Your task to perform on an android device: delete location history Image 0: 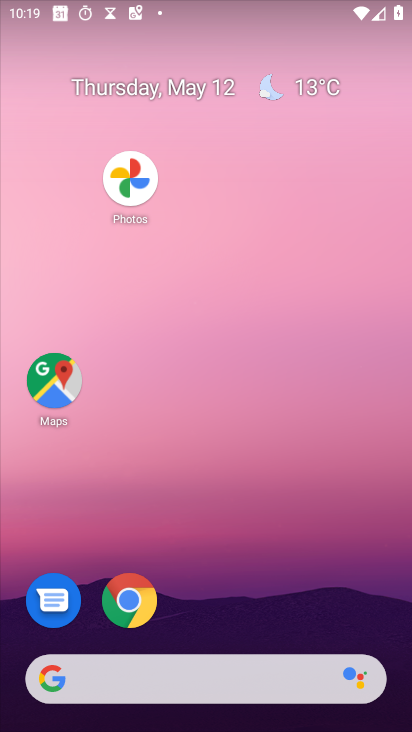
Step 0: drag from (244, 602) to (163, 54)
Your task to perform on an android device: delete location history Image 1: 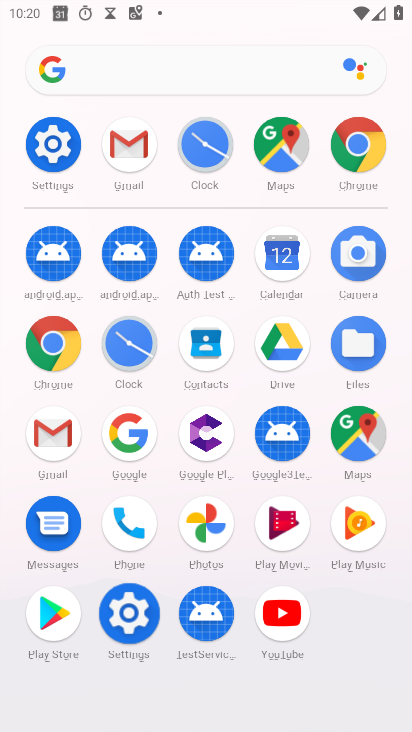
Step 1: click (366, 441)
Your task to perform on an android device: delete location history Image 2: 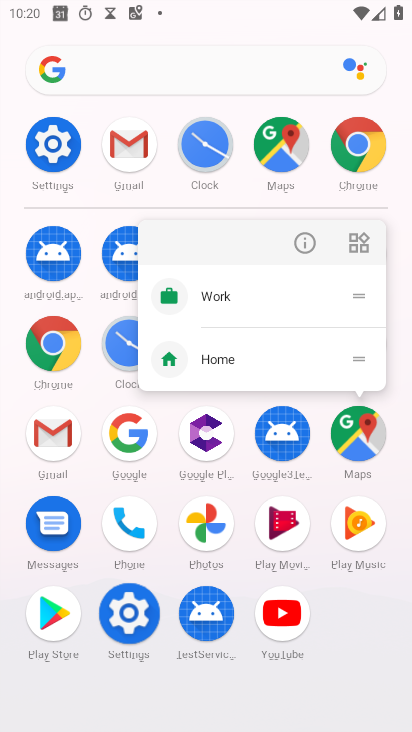
Step 2: click (359, 429)
Your task to perform on an android device: delete location history Image 3: 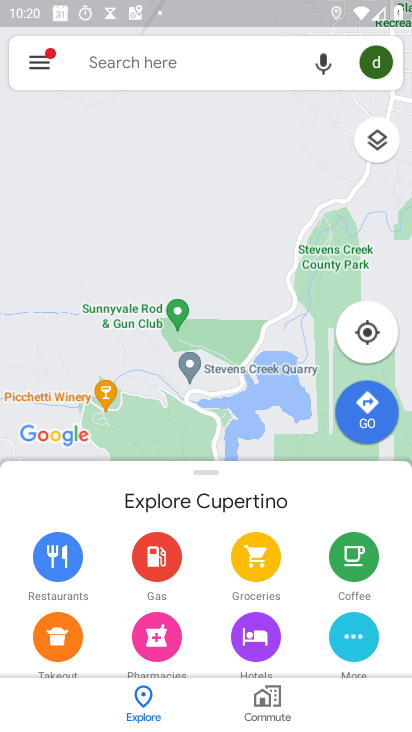
Step 3: click (40, 49)
Your task to perform on an android device: delete location history Image 4: 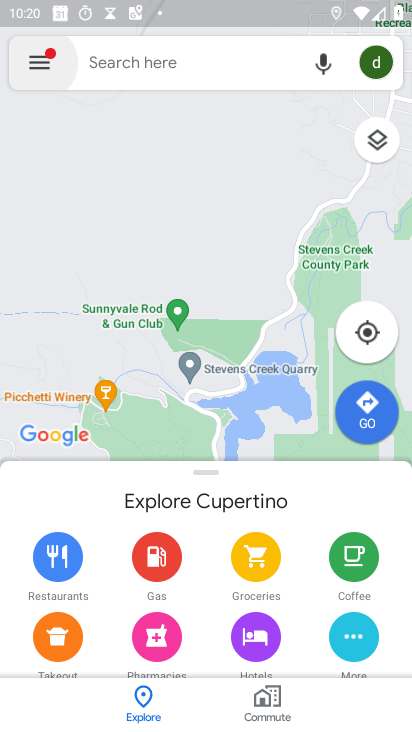
Step 4: click (44, 61)
Your task to perform on an android device: delete location history Image 5: 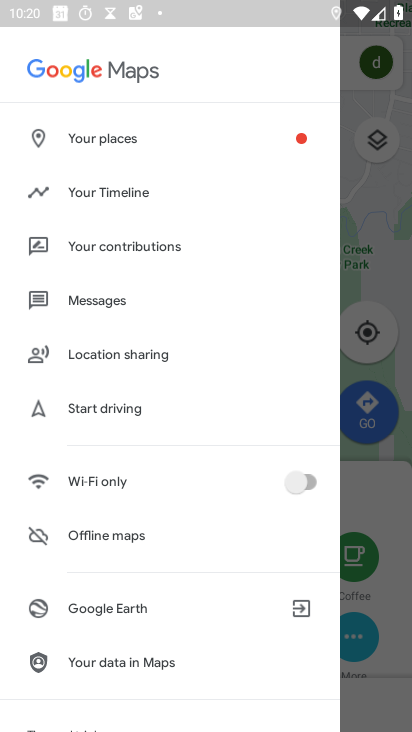
Step 5: click (112, 204)
Your task to perform on an android device: delete location history Image 6: 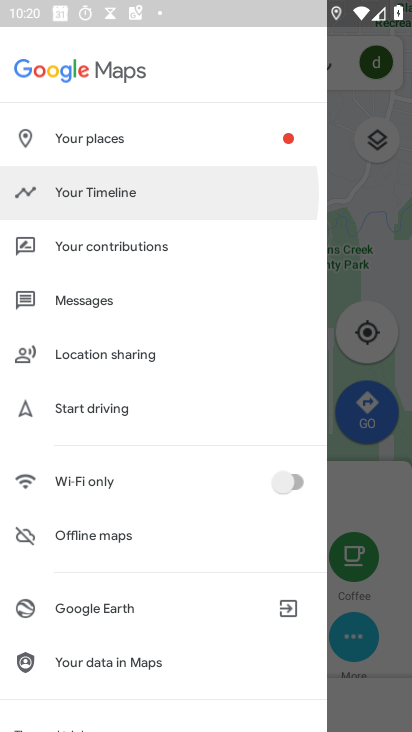
Step 6: click (120, 193)
Your task to perform on an android device: delete location history Image 7: 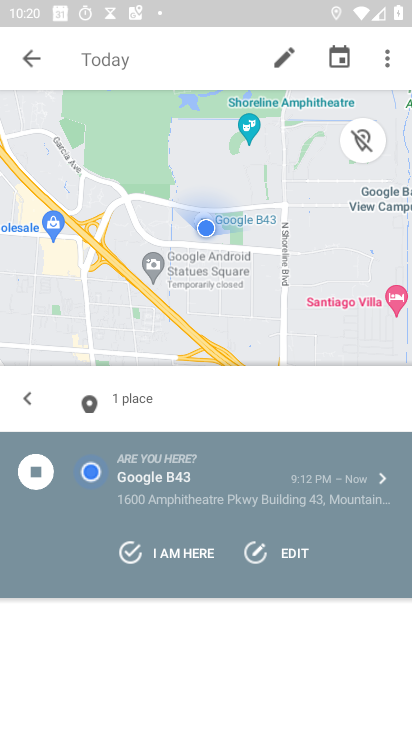
Step 7: click (387, 58)
Your task to perform on an android device: delete location history Image 8: 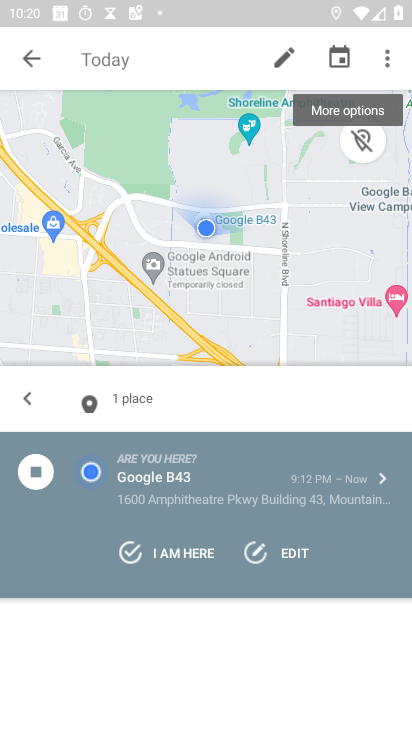
Step 8: click (387, 60)
Your task to perform on an android device: delete location history Image 9: 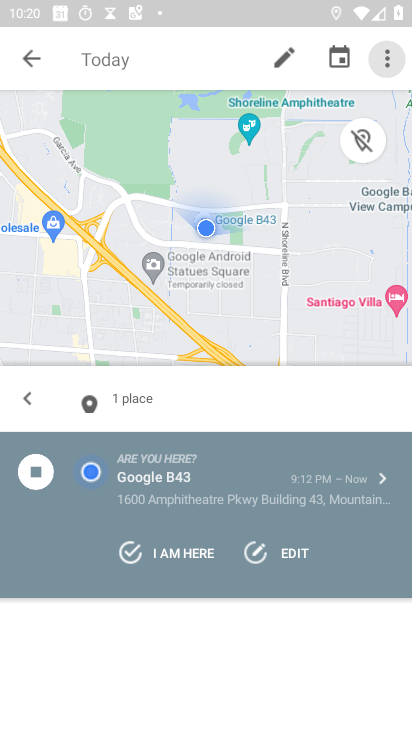
Step 9: click (388, 60)
Your task to perform on an android device: delete location history Image 10: 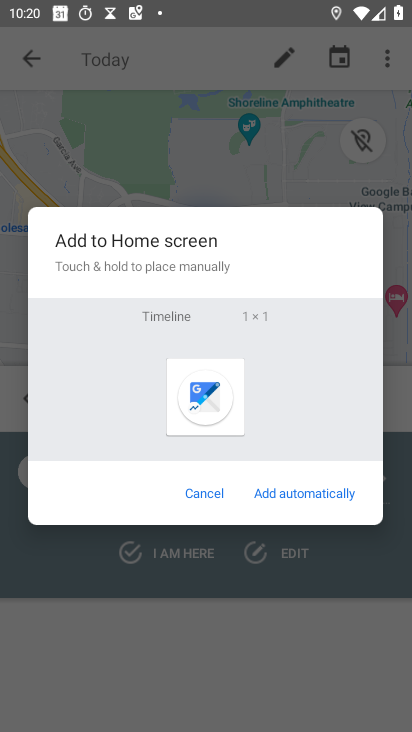
Step 10: click (199, 490)
Your task to perform on an android device: delete location history Image 11: 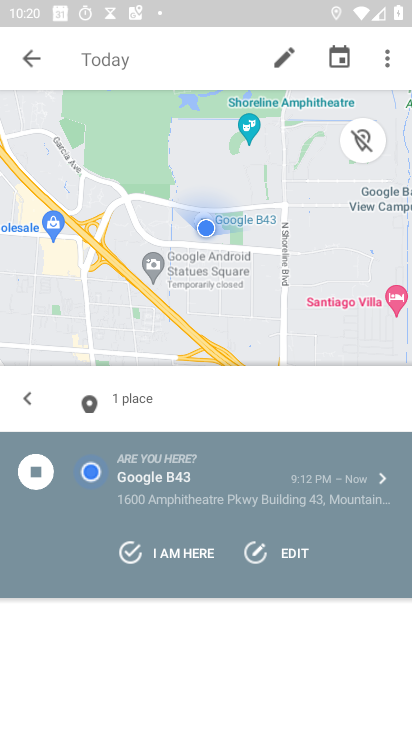
Step 11: click (384, 60)
Your task to perform on an android device: delete location history Image 12: 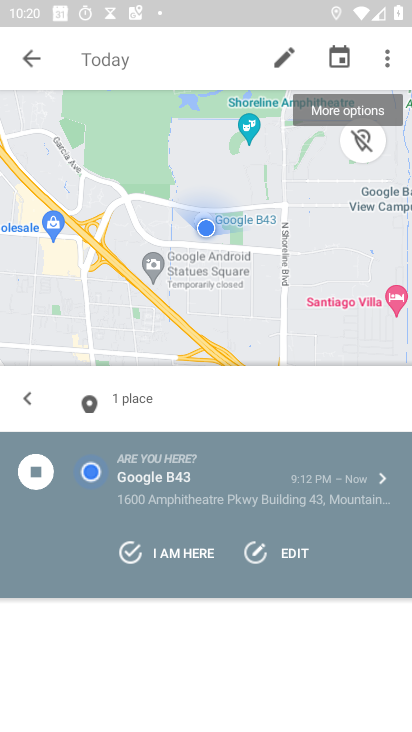
Step 12: click (384, 60)
Your task to perform on an android device: delete location history Image 13: 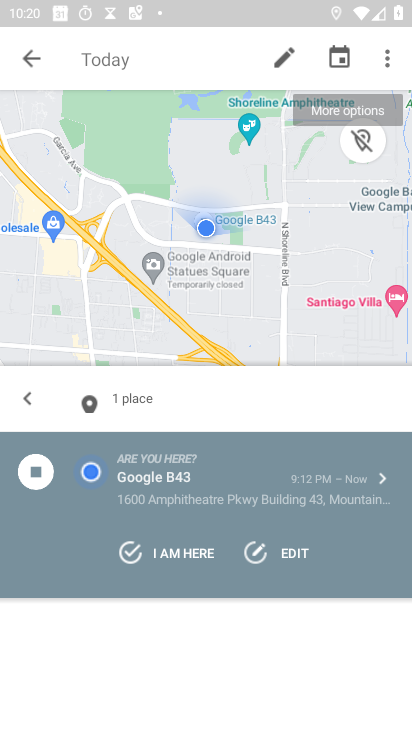
Step 13: click (387, 59)
Your task to perform on an android device: delete location history Image 14: 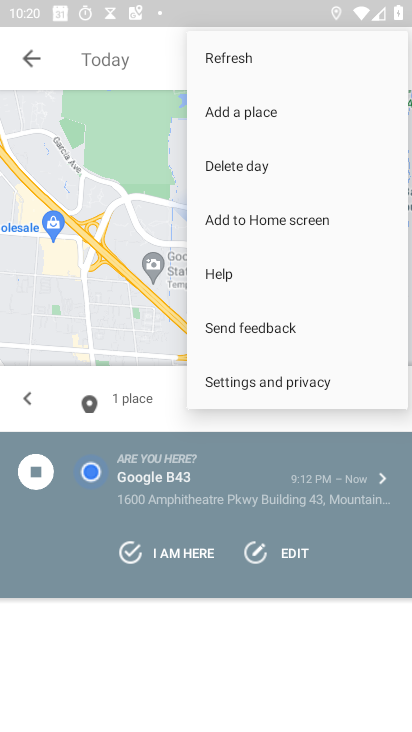
Step 14: click (248, 383)
Your task to perform on an android device: delete location history Image 15: 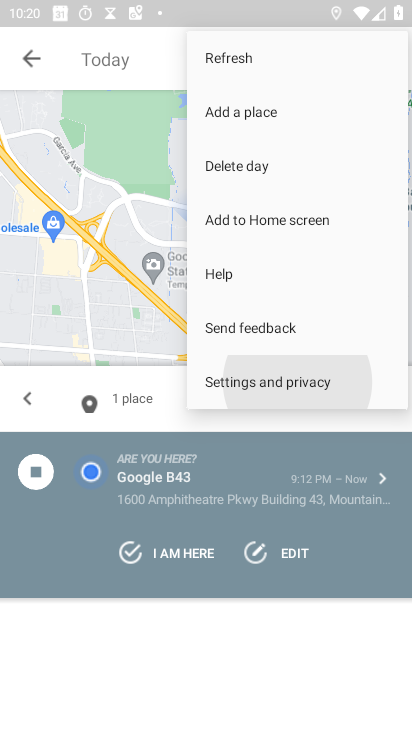
Step 15: click (249, 382)
Your task to perform on an android device: delete location history Image 16: 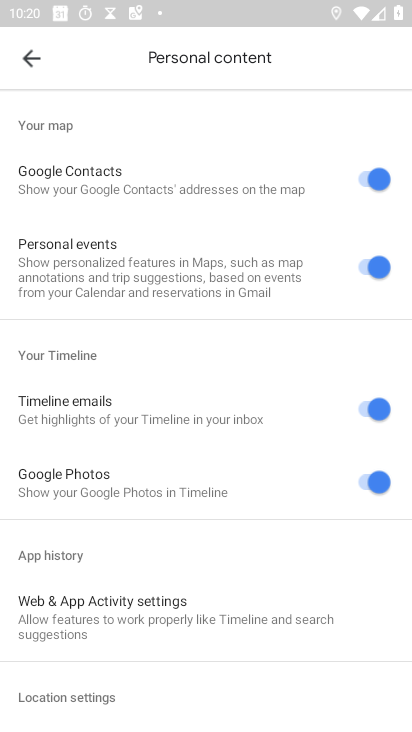
Step 16: drag from (123, 513) to (133, 185)
Your task to perform on an android device: delete location history Image 17: 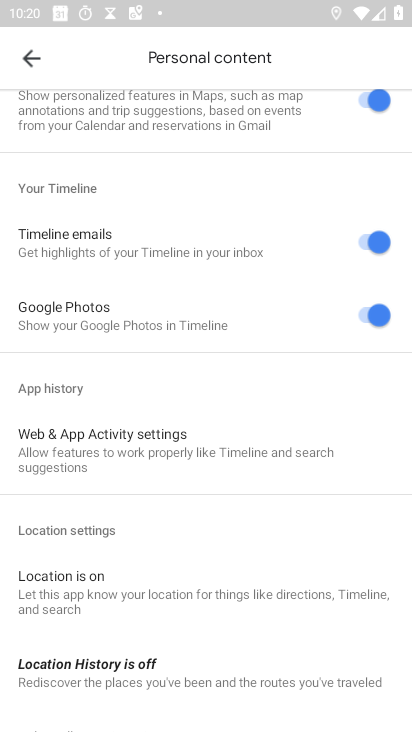
Step 17: drag from (144, 527) to (221, 232)
Your task to perform on an android device: delete location history Image 18: 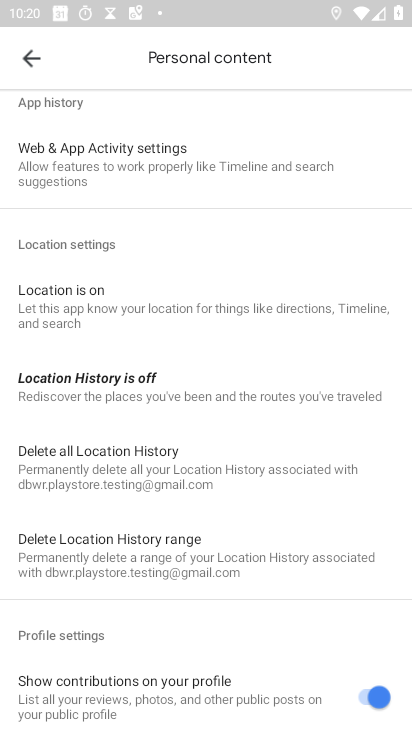
Step 18: click (99, 462)
Your task to perform on an android device: delete location history Image 19: 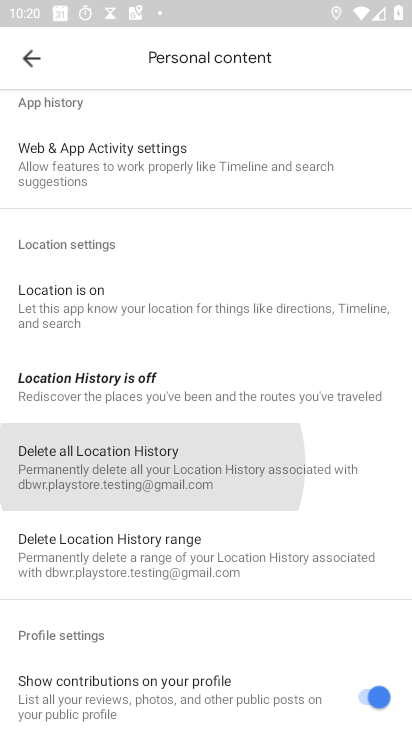
Step 19: click (99, 462)
Your task to perform on an android device: delete location history Image 20: 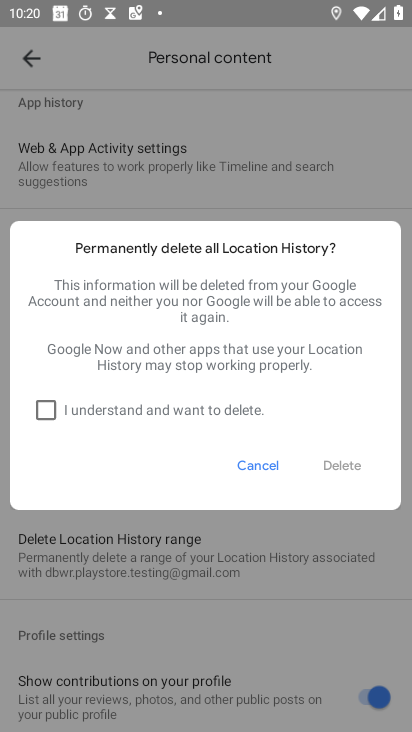
Step 20: click (99, 462)
Your task to perform on an android device: delete location history Image 21: 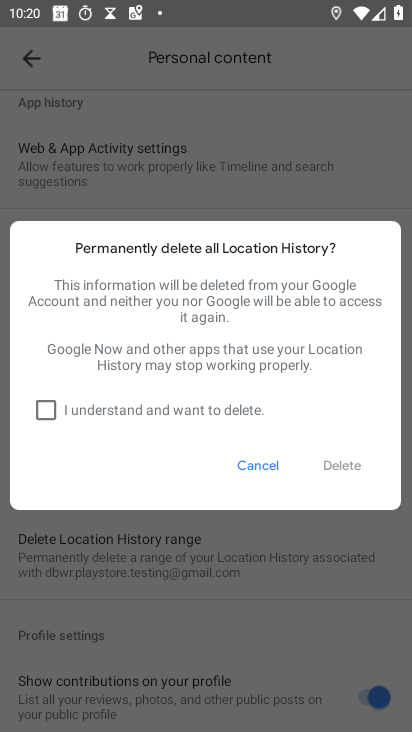
Step 21: click (41, 414)
Your task to perform on an android device: delete location history Image 22: 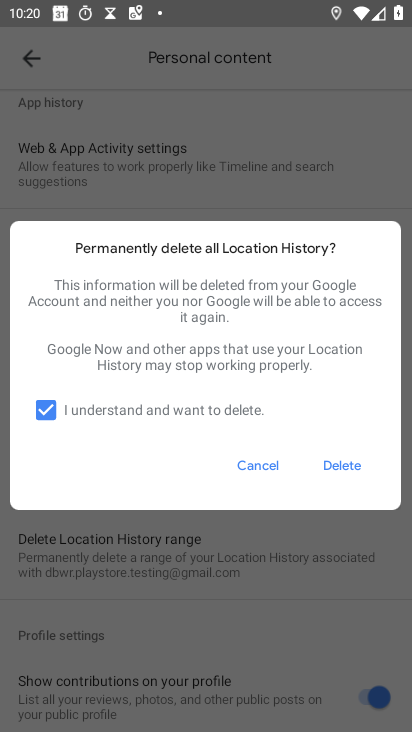
Step 22: click (338, 464)
Your task to perform on an android device: delete location history Image 23: 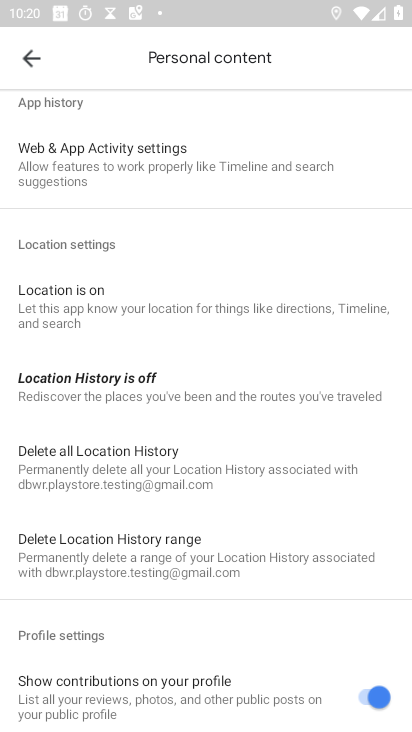
Step 23: click (338, 464)
Your task to perform on an android device: delete location history Image 24: 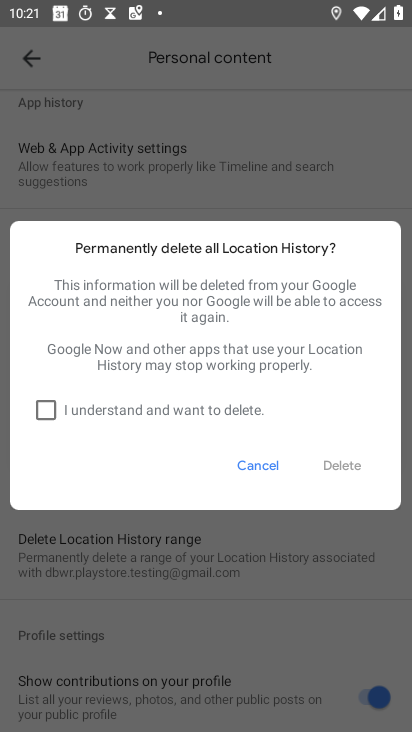
Step 24: task complete